Your task to perform on an android device: Open eBay Image 0: 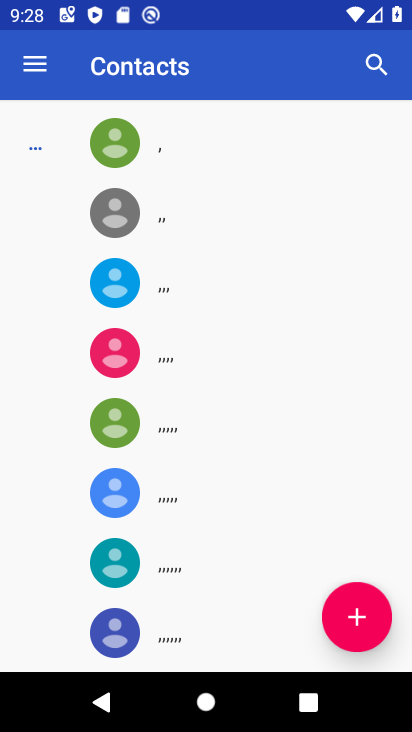
Step 0: press home button
Your task to perform on an android device: Open eBay Image 1: 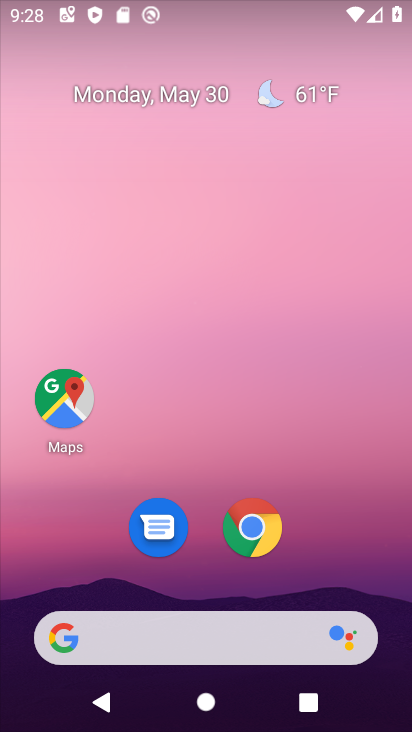
Step 1: click (253, 521)
Your task to perform on an android device: Open eBay Image 2: 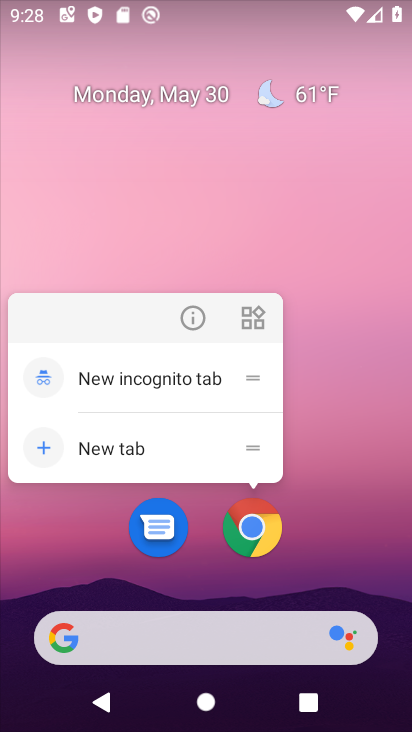
Step 2: click (251, 519)
Your task to perform on an android device: Open eBay Image 3: 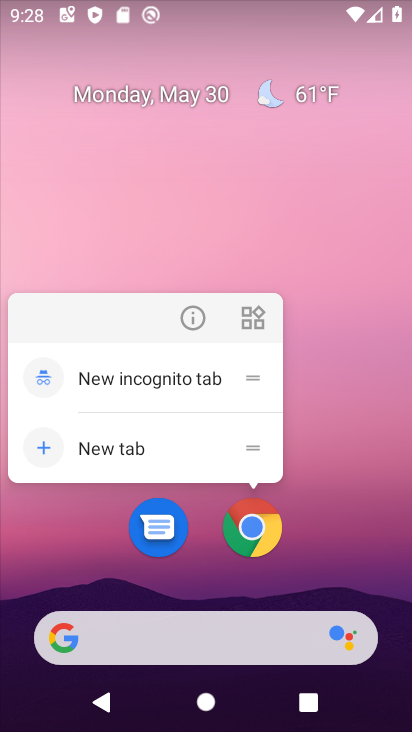
Step 3: click (251, 519)
Your task to perform on an android device: Open eBay Image 4: 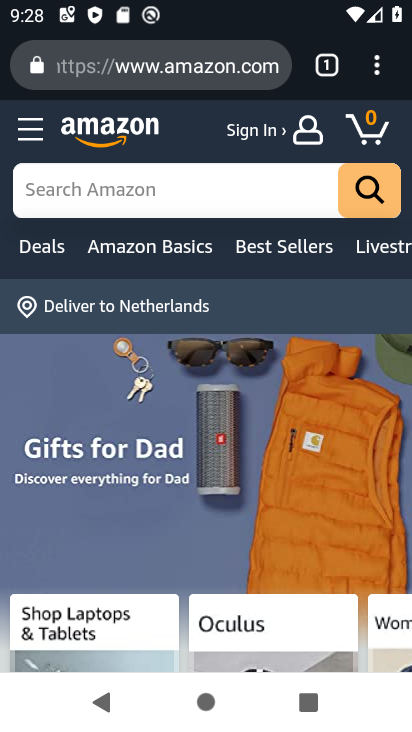
Step 4: click (149, 68)
Your task to perform on an android device: Open eBay Image 5: 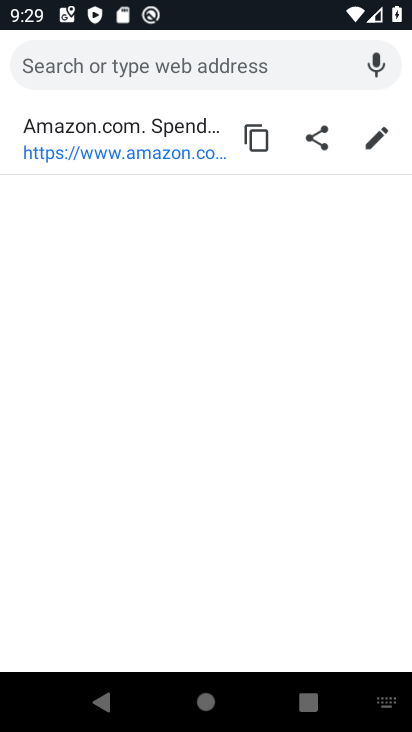
Step 5: type "ebay"
Your task to perform on an android device: Open eBay Image 6: 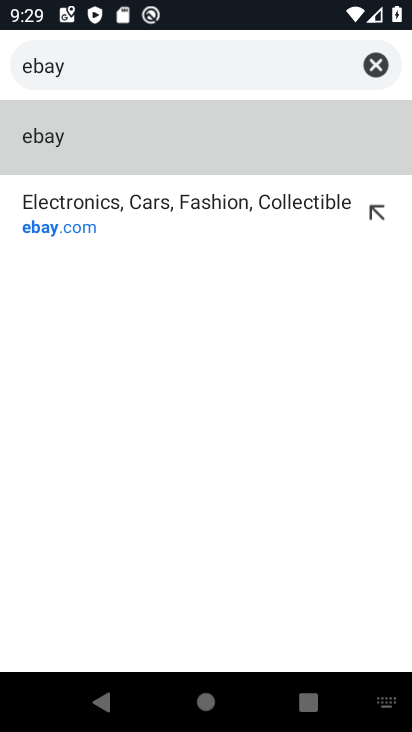
Step 6: click (44, 134)
Your task to perform on an android device: Open eBay Image 7: 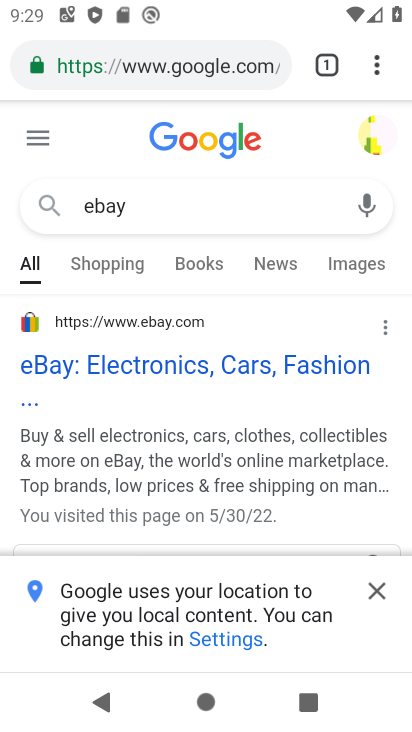
Step 7: click (176, 365)
Your task to perform on an android device: Open eBay Image 8: 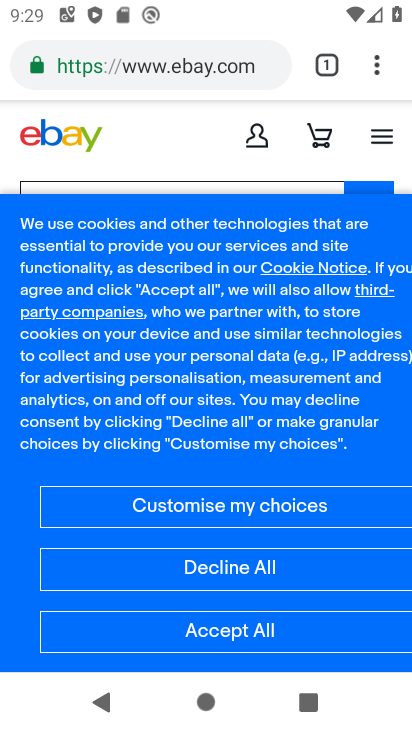
Step 8: task complete